Your task to perform on an android device: Go to Google Image 0: 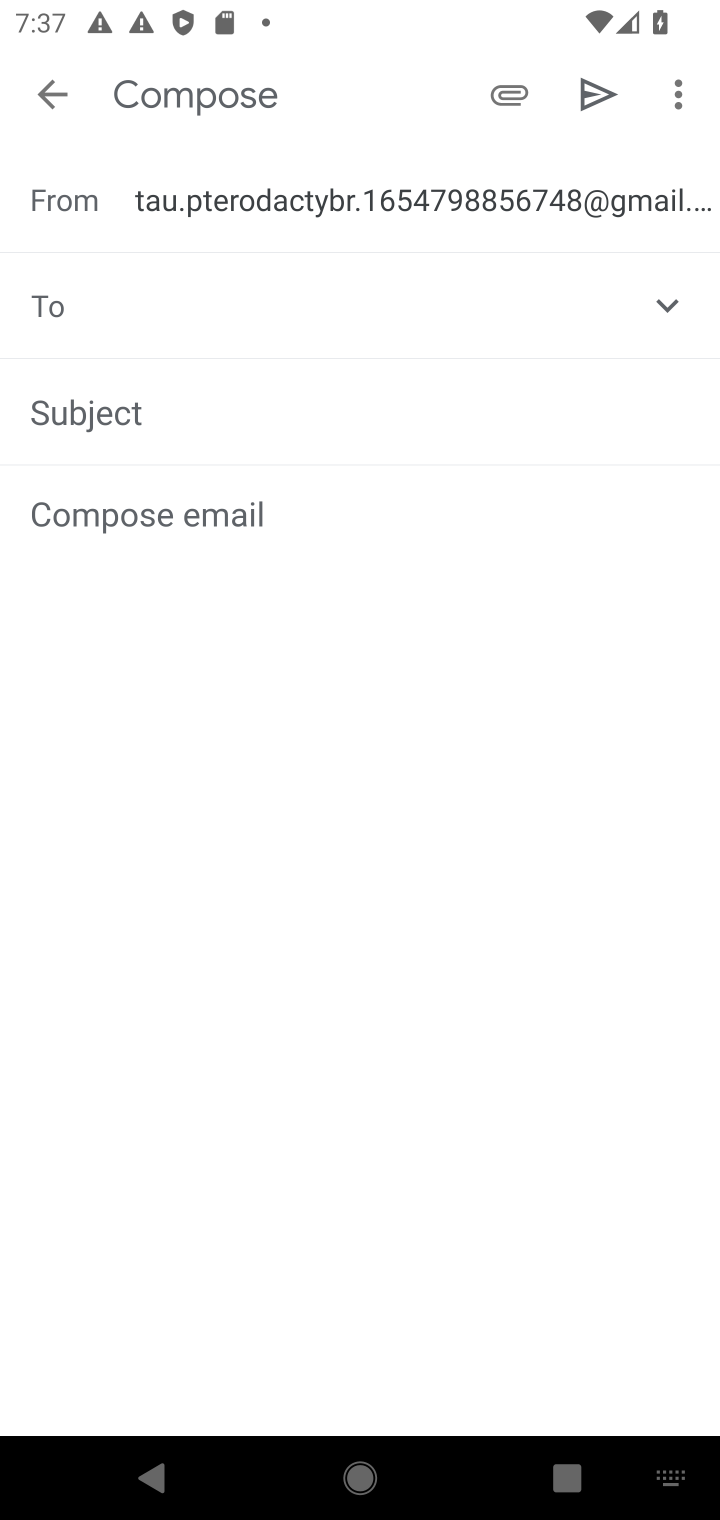
Step 0: press home button
Your task to perform on an android device: Go to Google Image 1: 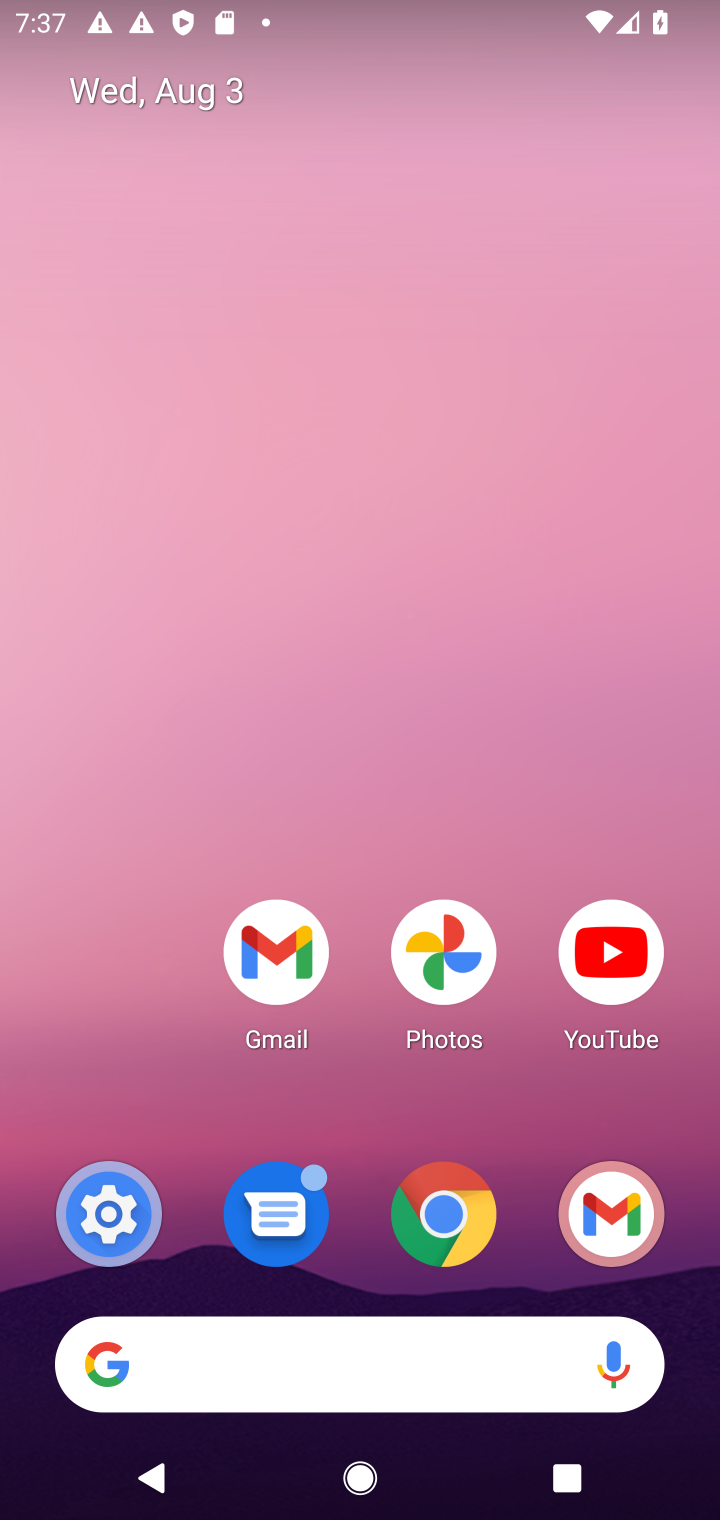
Step 1: drag from (318, 1265) to (289, 398)
Your task to perform on an android device: Go to Google Image 2: 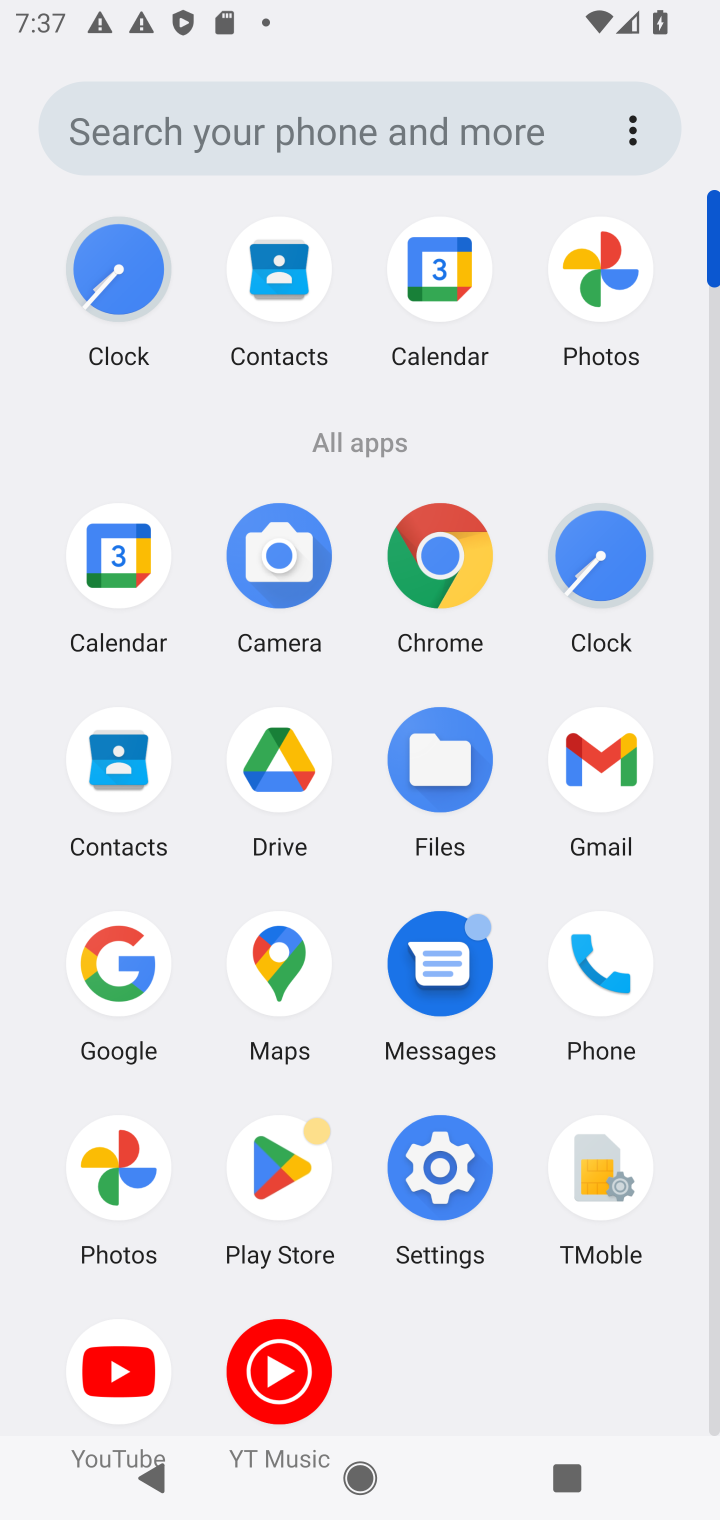
Step 2: click (131, 942)
Your task to perform on an android device: Go to Google Image 3: 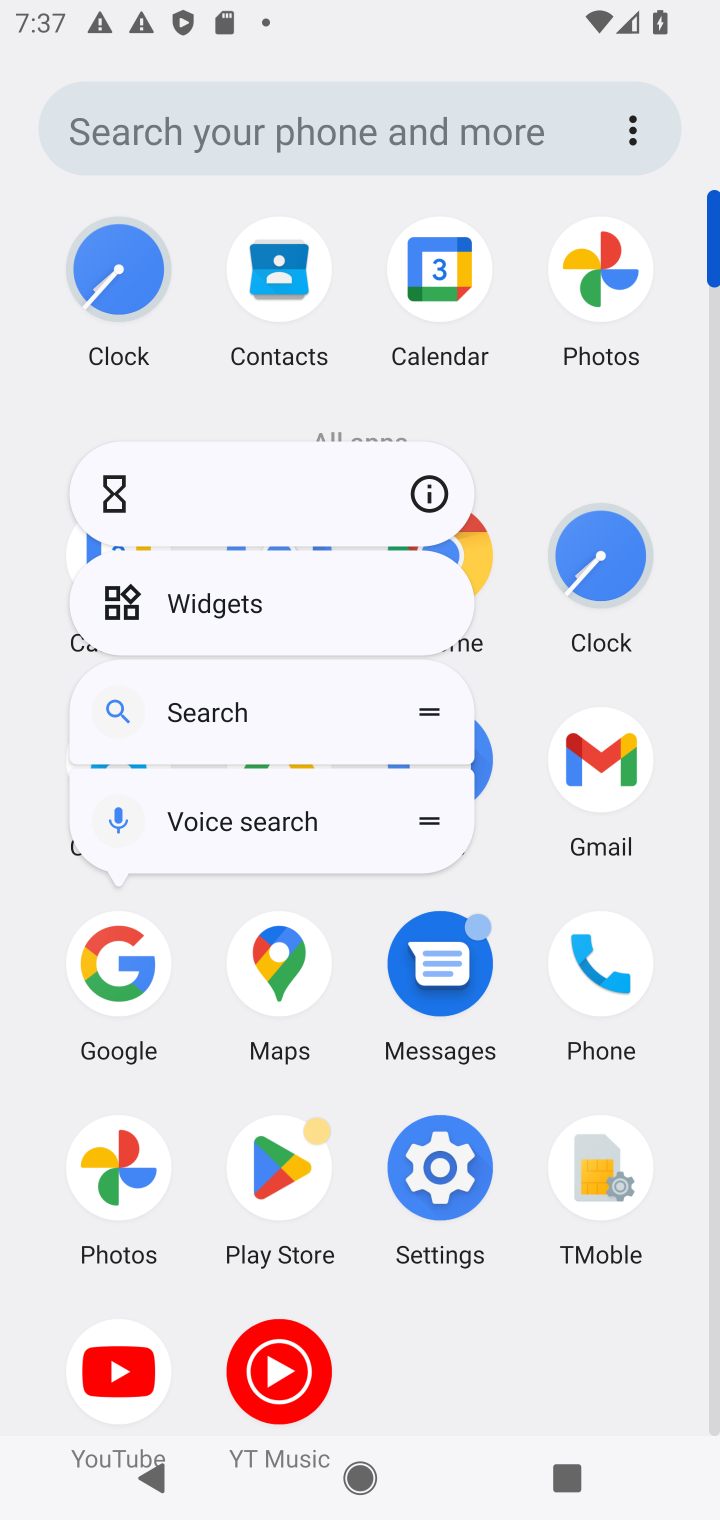
Step 3: click (101, 977)
Your task to perform on an android device: Go to Google Image 4: 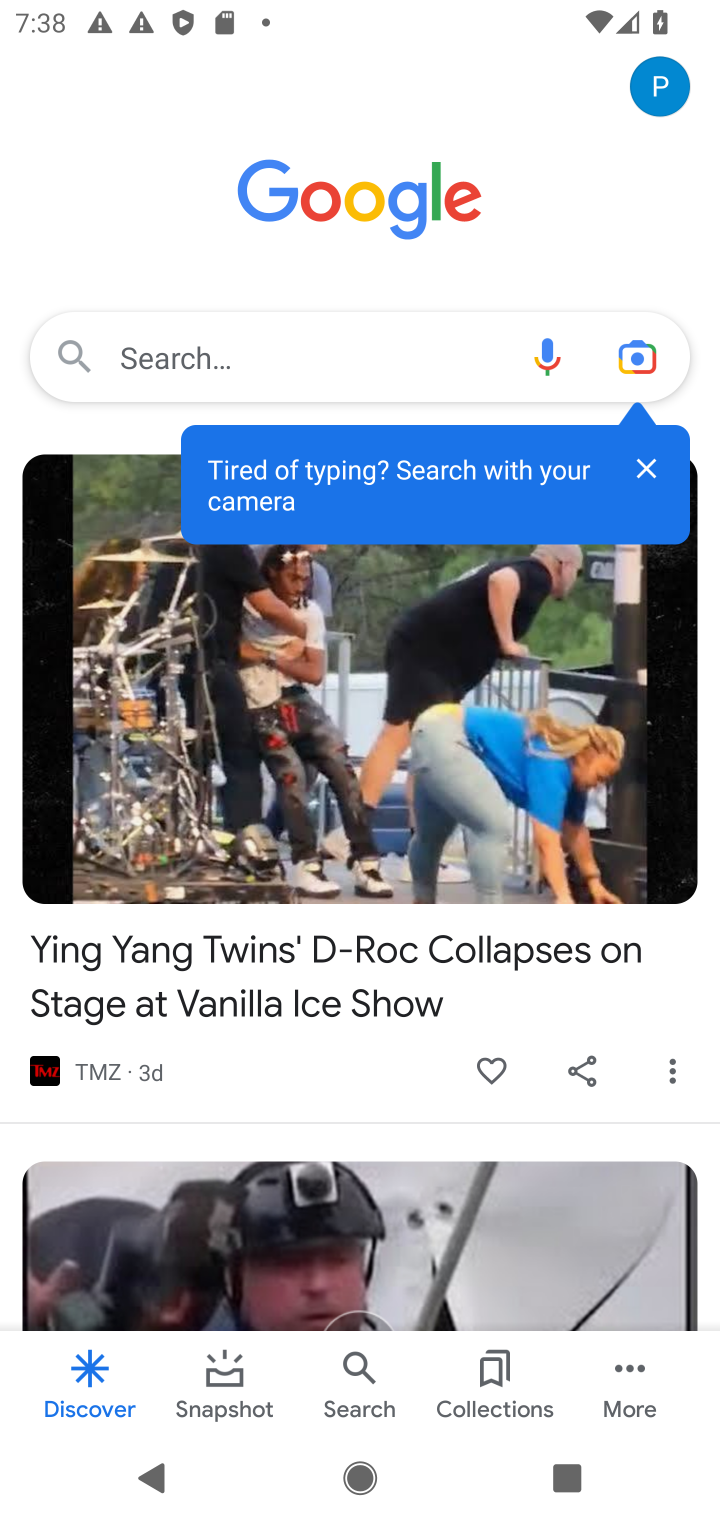
Step 4: task complete